Your task to perform on an android device: Play the last video I watched on Youtube Image 0: 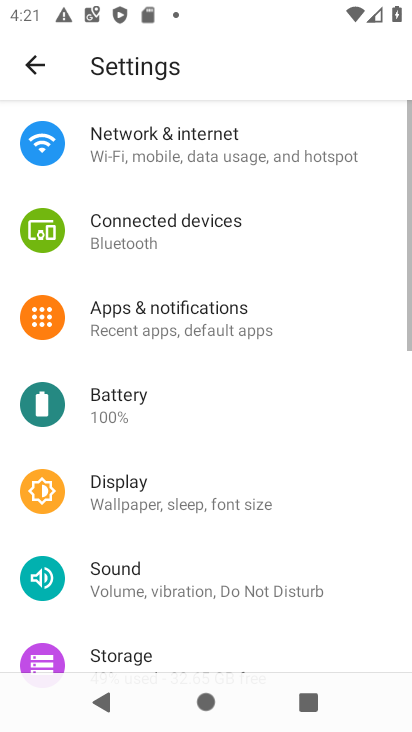
Step 0: press home button
Your task to perform on an android device: Play the last video I watched on Youtube Image 1: 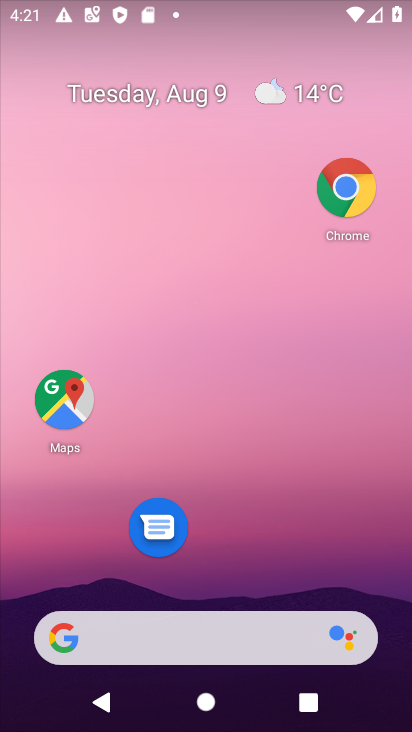
Step 1: drag from (242, 547) to (235, 122)
Your task to perform on an android device: Play the last video I watched on Youtube Image 2: 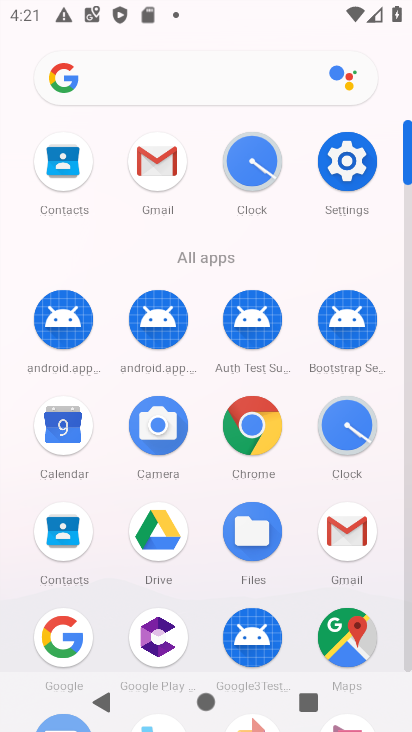
Step 2: drag from (294, 626) to (303, 252)
Your task to perform on an android device: Play the last video I watched on Youtube Image 3: 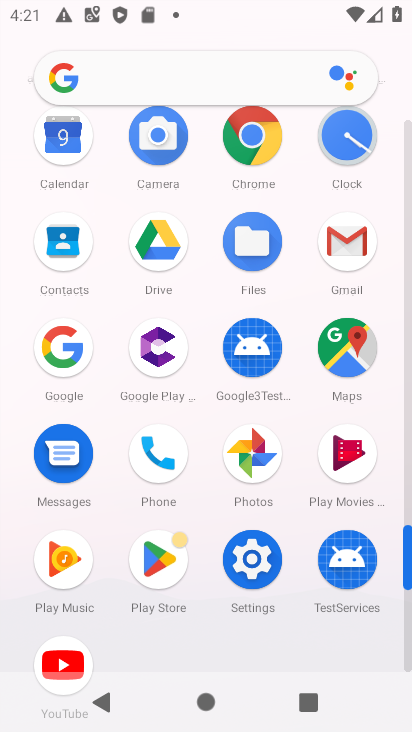
Step 3: click (74, 655)
Your task to perform on an android device: Play the last video I watched on Youtube Image 4: 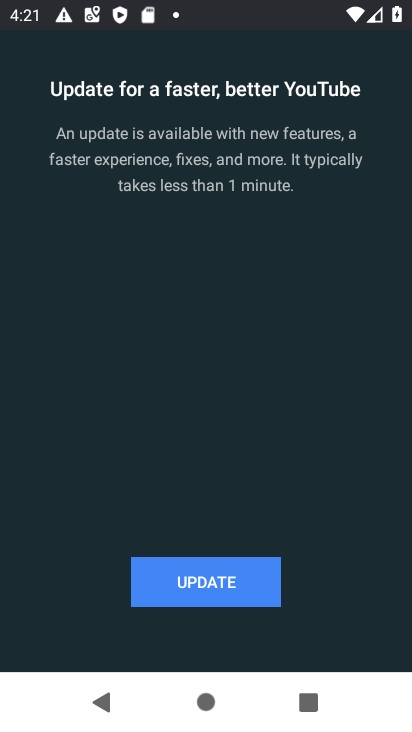
Step 4: click (272, 583)
Your task to perform on an android device: Play the last video I watched on Youtube Image 5: 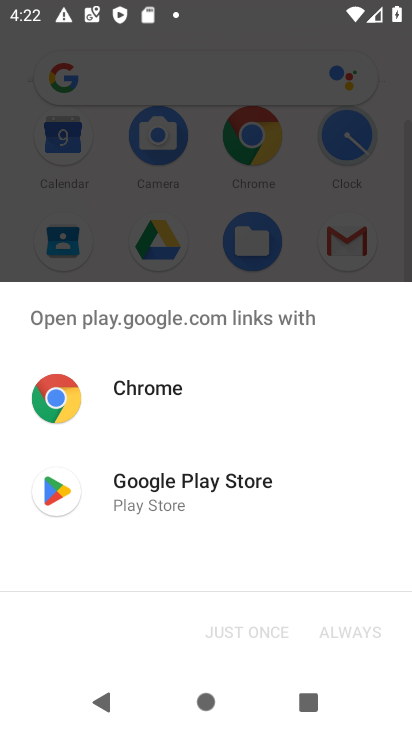
Step 5: click (232, 499)
Your task to perform on an android device: Play the last video I watched on Youtube Image 6: 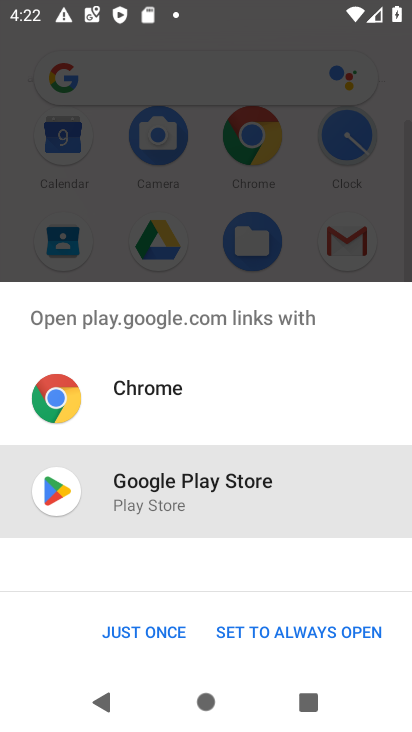
Step 6: click (197, 494)
Your task to perform on an android device: Play the last video I watched on Youtube Image 7: 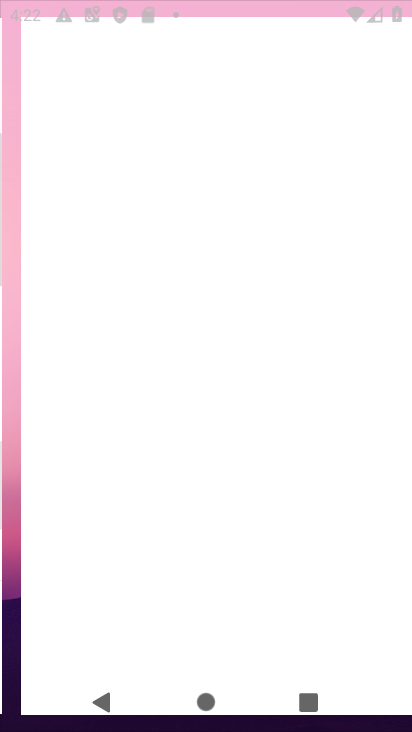
Step 7: click (146, 634)
Your task to perform on an android device: Play the last video I watched on Youtube Image 8: 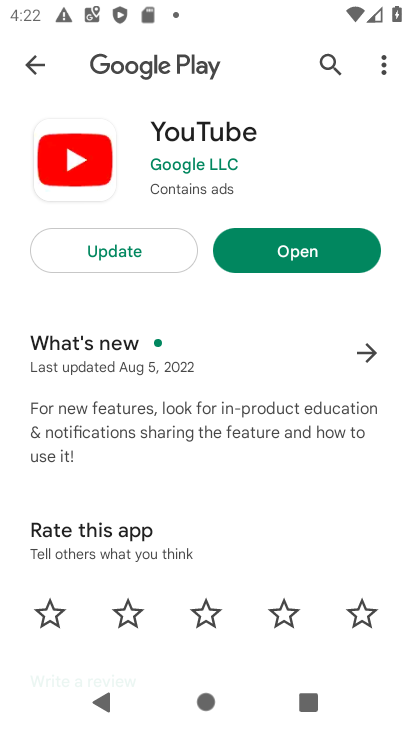
Step 8: click (113, 251)
Your task to perform on an android device: Play the last video I watched on Youtube Image 9: 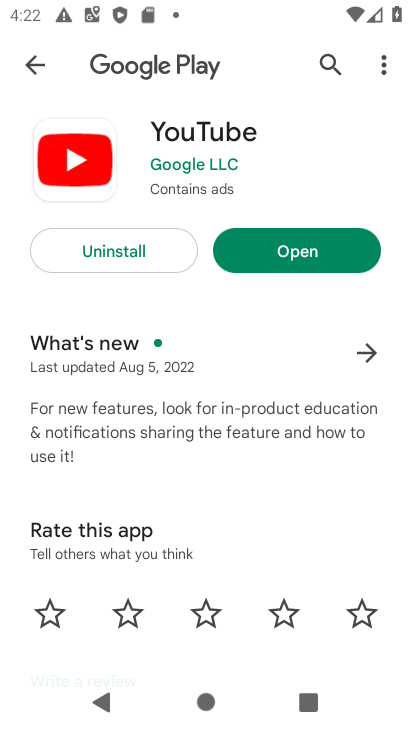
Step 9: click (235, 238)
Your task to perform on an android device: Play the last video I watched on Youtube Image 10: 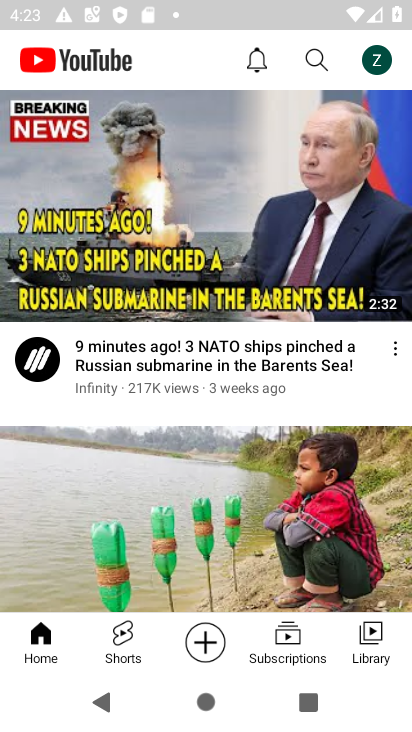
Step 10: click (377, 638)
Your task to perform on an android device: Play the last video I watched on Youtube Image 11: 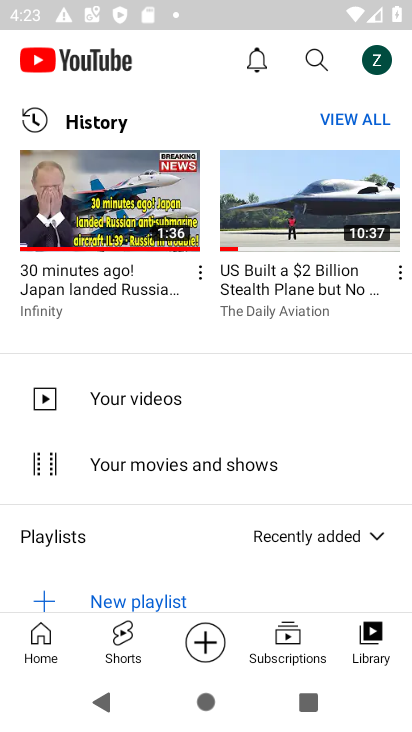
Step 11: click (104, 216)
Your task to perform on an android device: Play the last video I watched on Youtube Image 12: 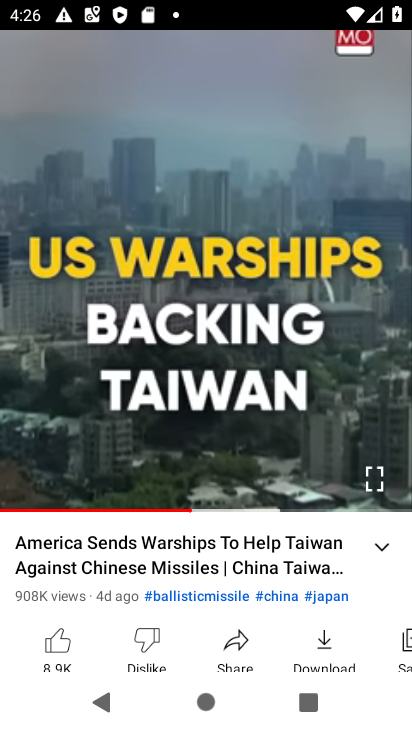
Step 12: task complete